Your task to perform on an android device: change the upload size in google photos Image 0: 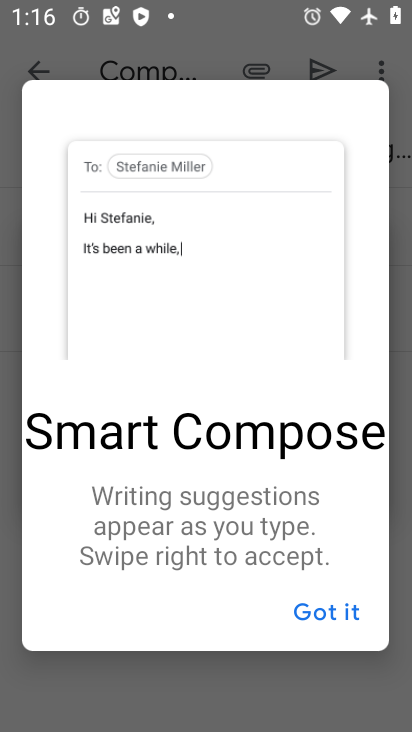
Step 0: press home button
Your task to perform on an android device: change the upload size in google photos Image 1: 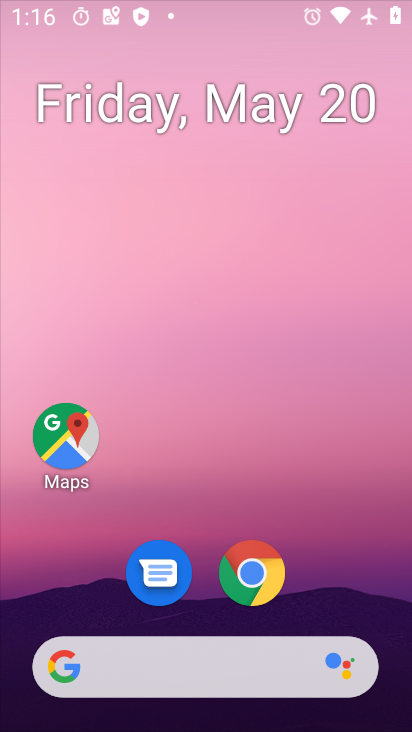
Step 1: drag from (318, 550) to (309, 39)
Your task to perform on an android device: change the upload size in google photos Image 2: 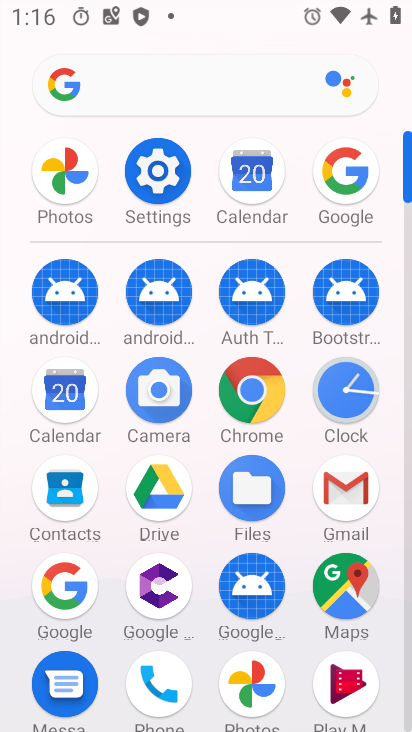
Step 2: click (72, 170)
Your task to perform on an android device: change the upload size in google photos Image 3: 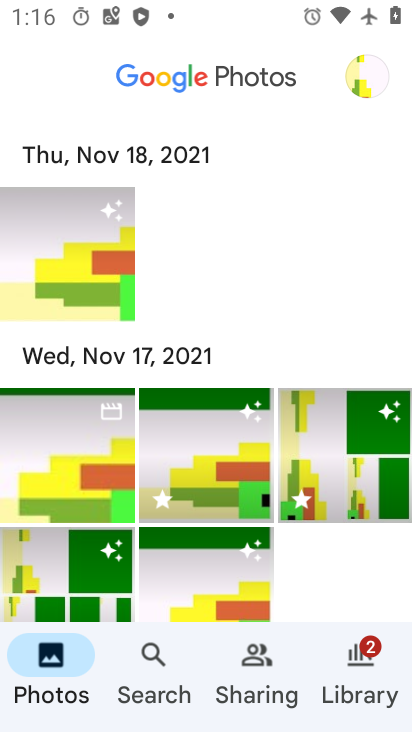
Step 3: click (373, 664)
Your task to perform on an android device: change the upload size in google photos Image 4: 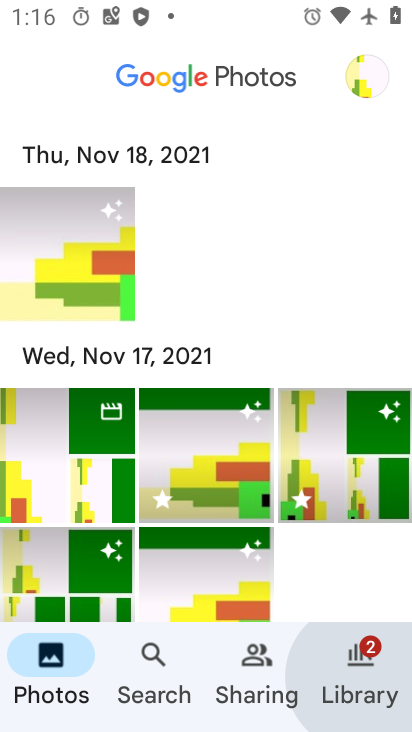
Step 4: click (361, 65)
Your task to perform on an android device: change the upload size in google photos Image 5: 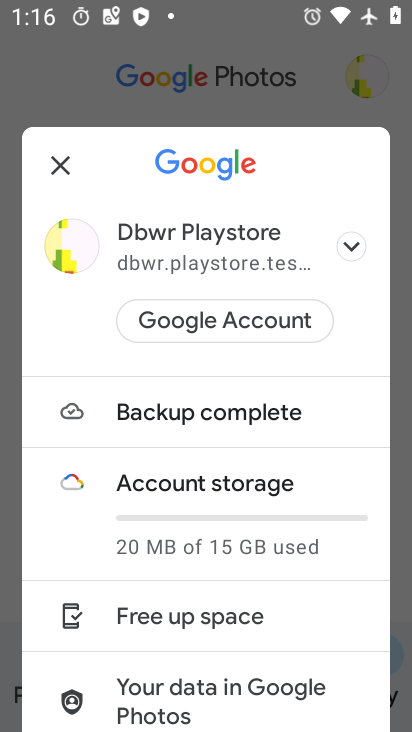
Step 5: drag from (187, 640) to (218, 220)
Your task to perform on an android device: change the upload size in google photos Image 6: 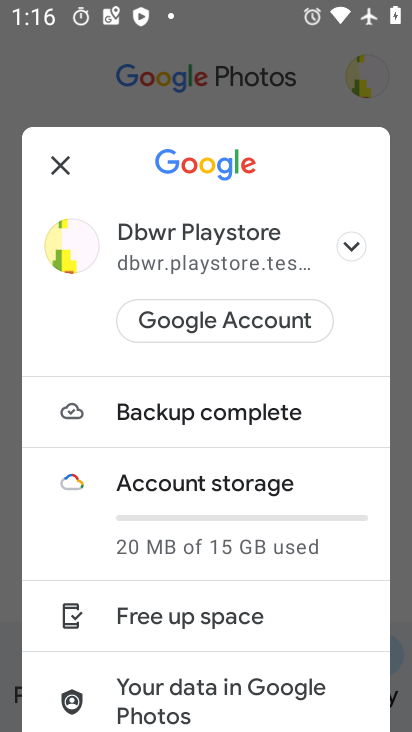
Step 6: drag from (205, 603) to (202, 166)
Your task to perform on an android device: change the upload size in google photos Image 7: 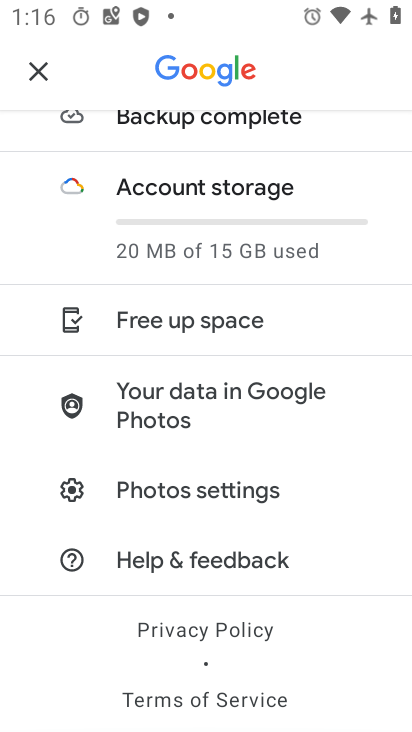
Step 7: click (206, 501)
Your task to perform on an android device: change the upload size in google photos Image 8: 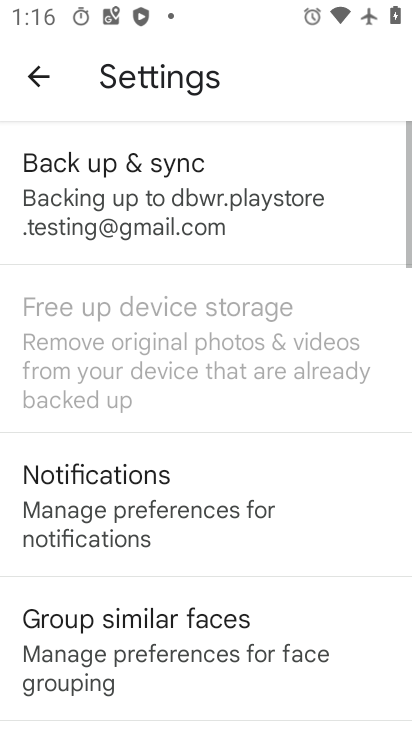
Step 8: click (196, 178)
Your task to perform on an android device: change the upload size in google photos Image 9: 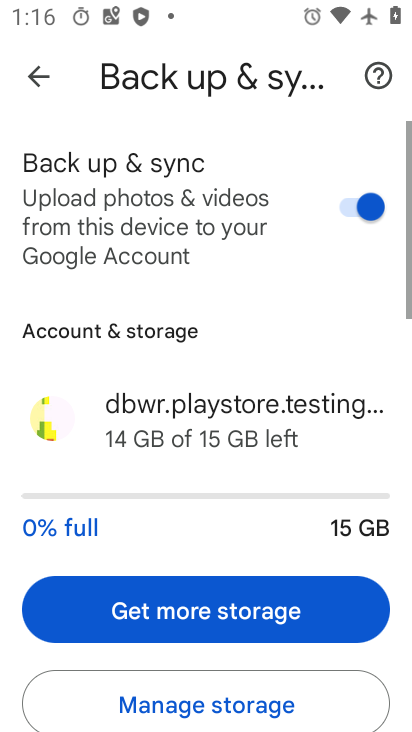
Step 9: drag from (197, 532) to (215, 110)
Your task to perform on an android device: change the upload size in google photos Image 10: 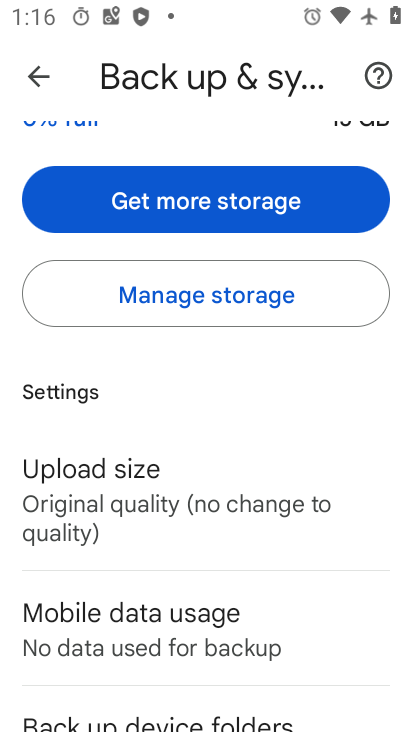
Step 10: click (148, 517)
Your task to perform on an android device: change the upload size in google photos Image 11: 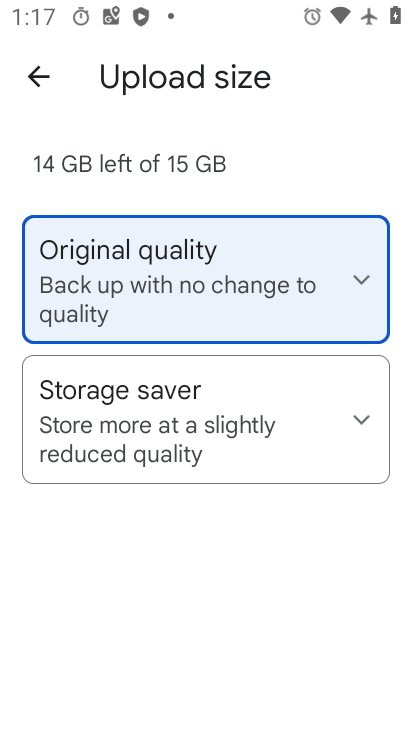
Step 11: click (113, 428)
Your task to perform on an android device: change the upload size in google photos Image 12: 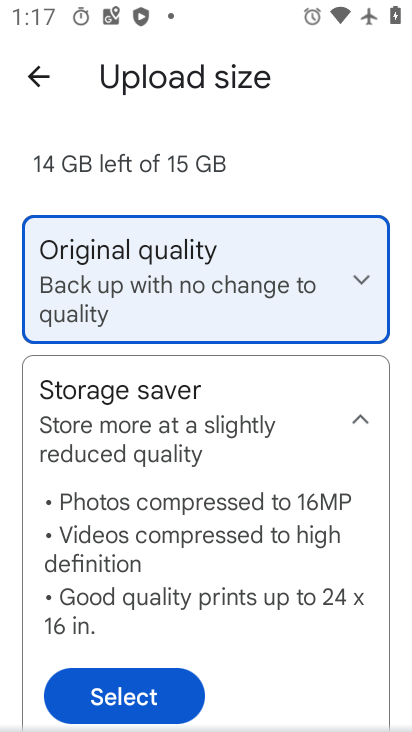
Step 12: click (128, 709)
Your task to perform on an android device: change the upload size in google photos Image 13: 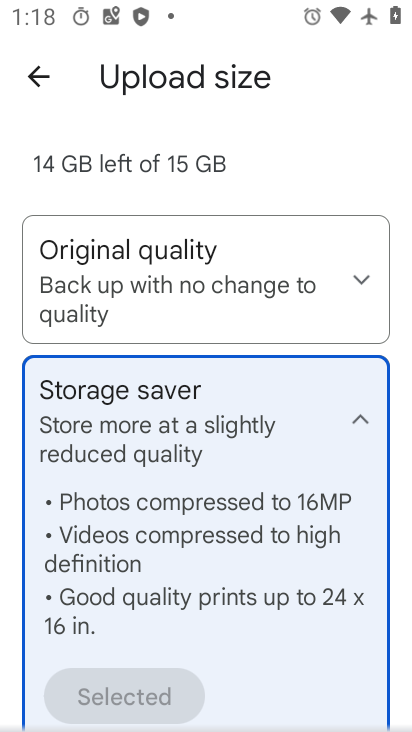
Step 13: task complete